Your task to perform on an android device: turn off sleep mode Image 0: 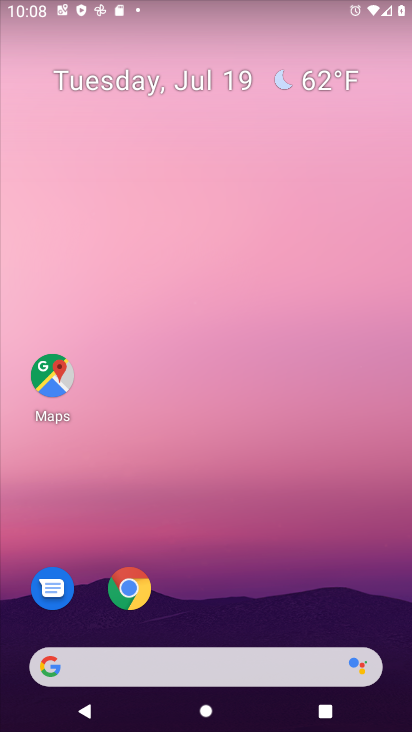
Step 0: drag from (257, 603) to (120, 153)
Your task to perform on an android device: turn off sleep mode Image 1: 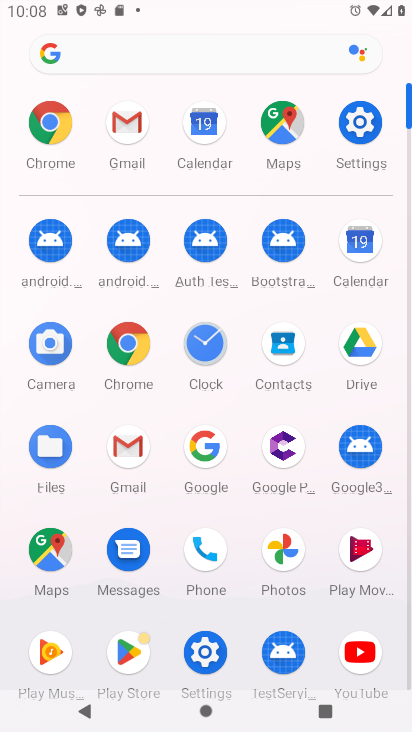
Step 1: click (381, 134)
Your task to perform on an android device: turn off sleep mode Image 2: 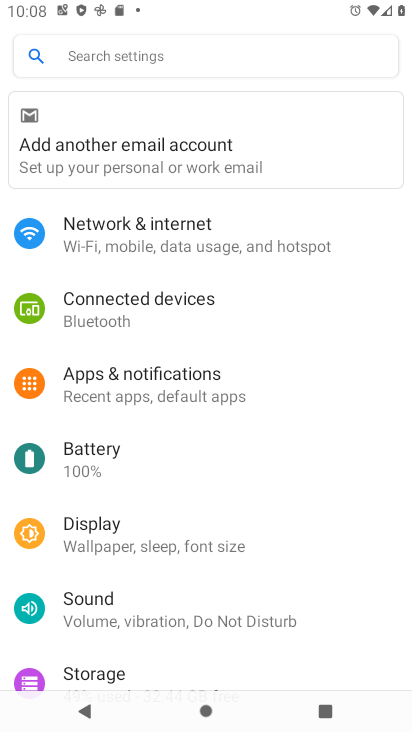
Step 2: click (94, 531)
Your task to perform on an android device: turn off sleep mode Image 3: 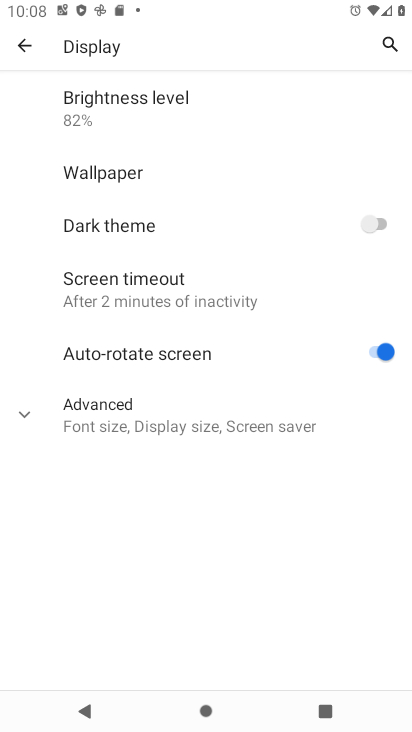
Step 3: click (92, 286)
Your task to perform on an android device: turn off sleep mode Image 4: 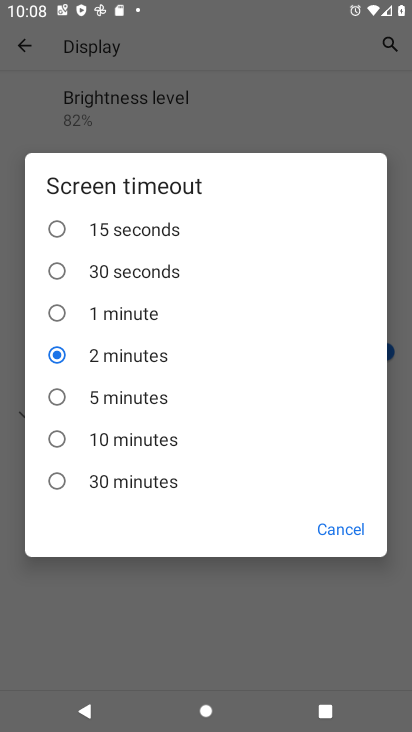
Step 4: task complete